Your task to perform on an android device: Go to location settings Image 0: 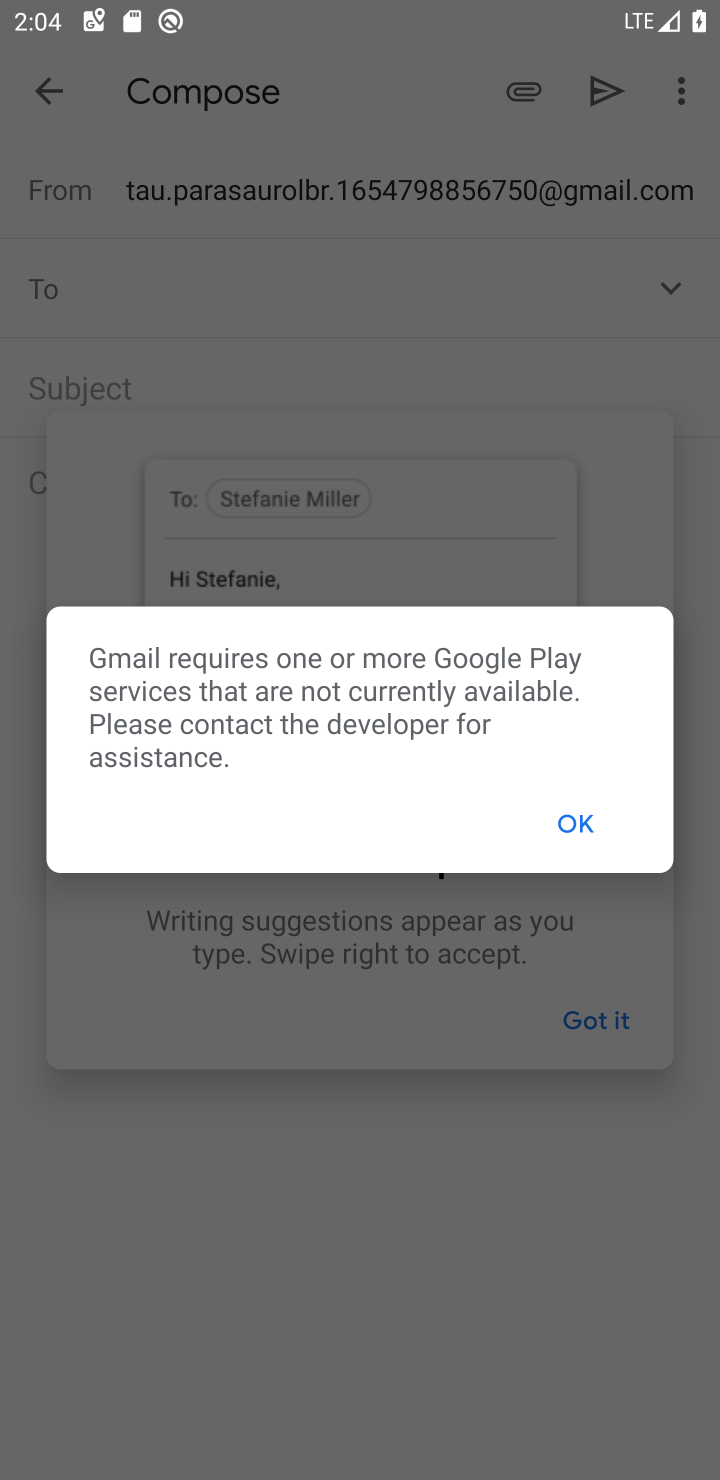
Step 0: drag from (639, 1250) to (627, 910)
Your task to perform on an android device: Go to location settings Image 1: 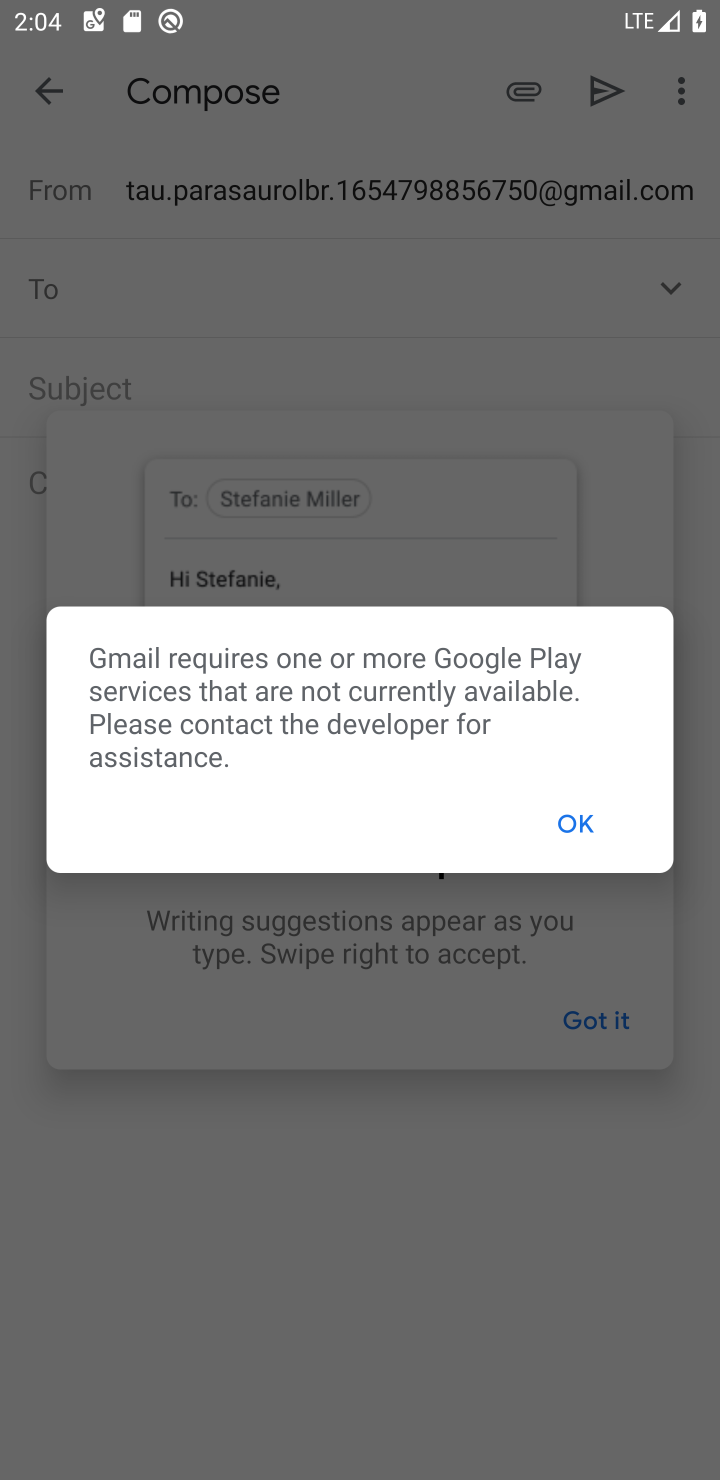
Step 1: press home button
Your task to perform on an android device: Go to location settings Image 2: 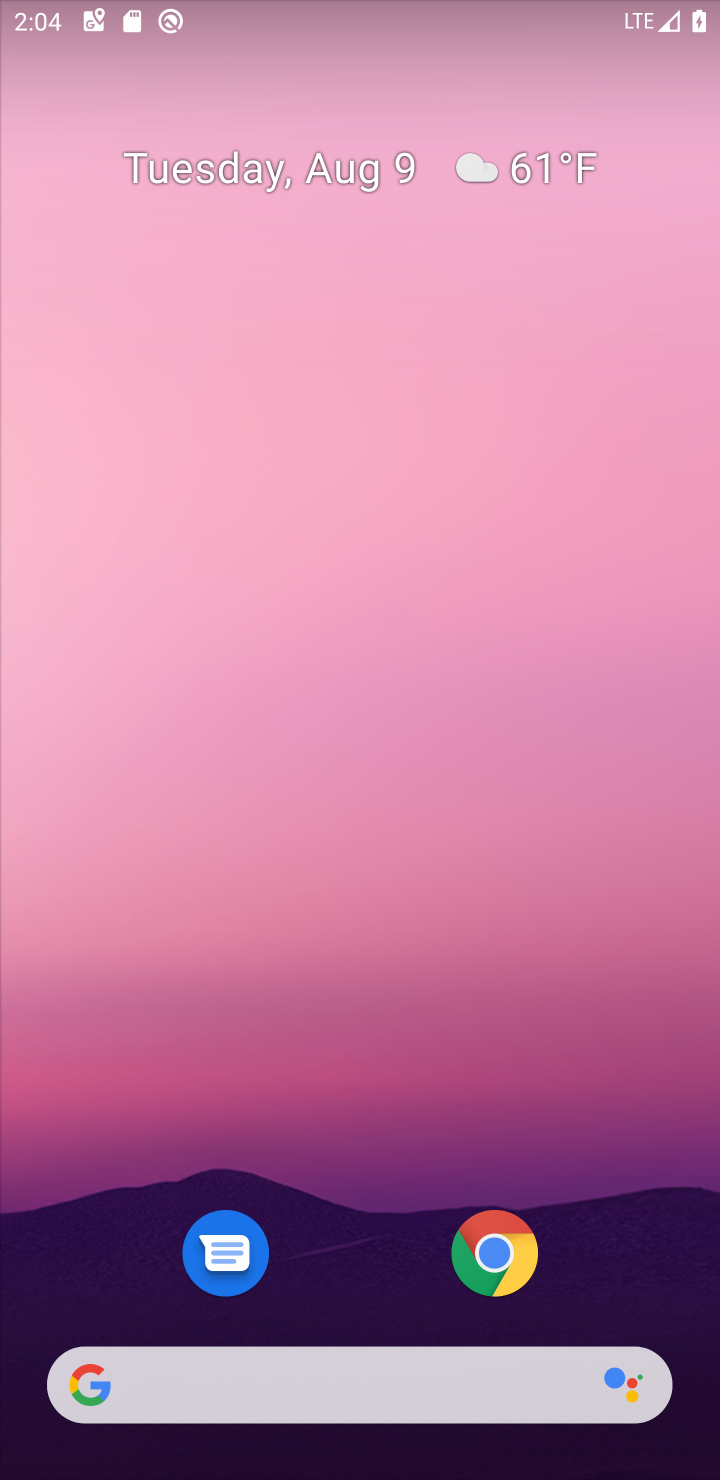
Step 2: drag from (640, 1155) to (302, 4)
Your task to perform on an android device: Go to location settings Image 3: 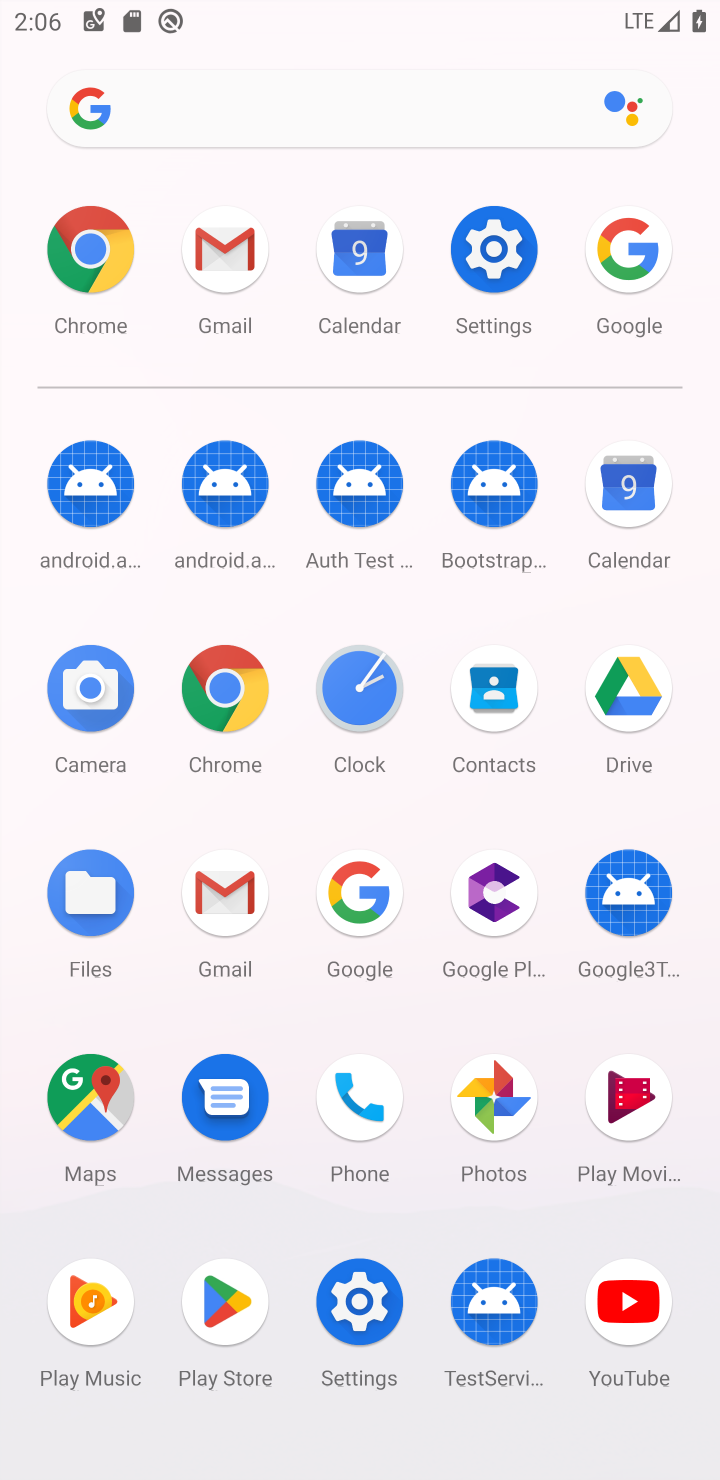
Step 3: click (352, 1300)
Your task to perform on an android device: Go to location settings Image 4: 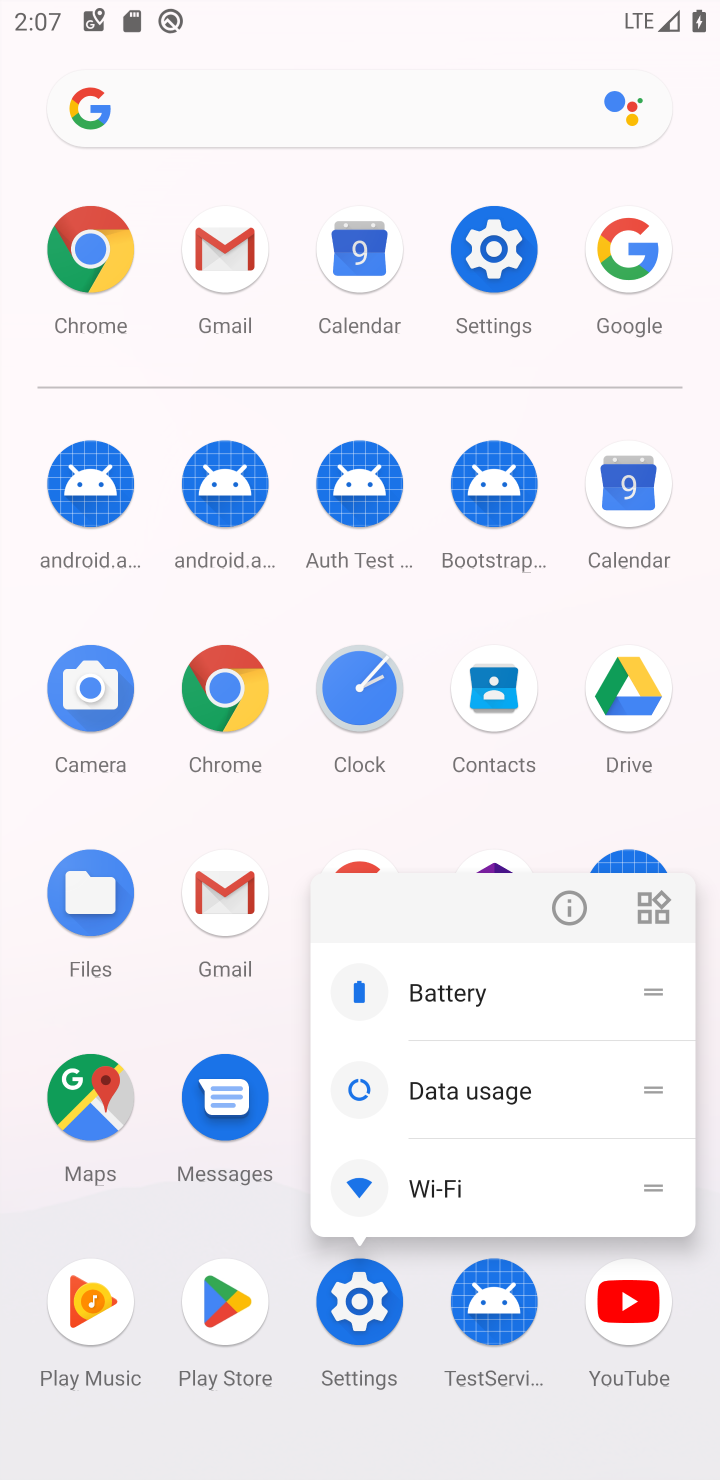
Step 4: click (381, 1309)
Your task to perform on an android device: Go to location settings Image 5: 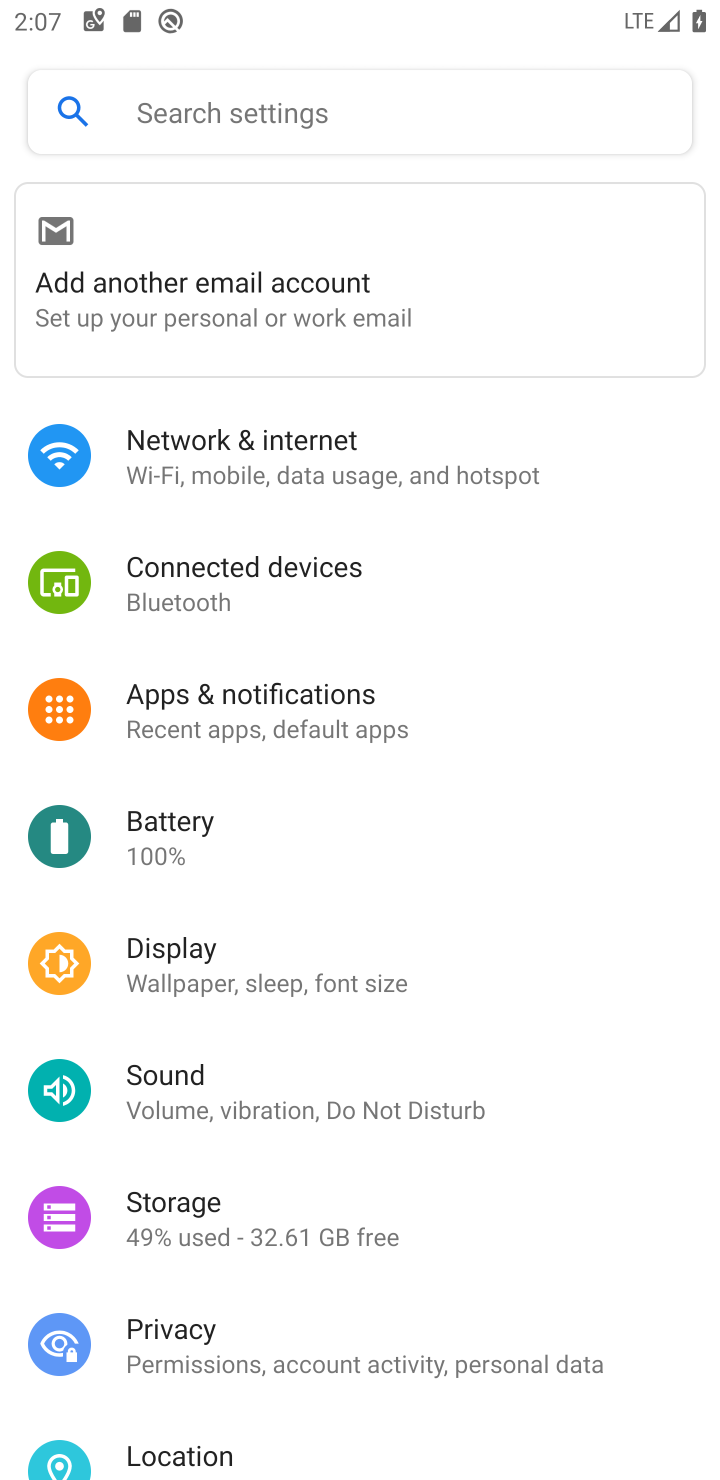
Step 5: click (115, 1435)
Your task to perform on an android device: Go to location settings Image 6: 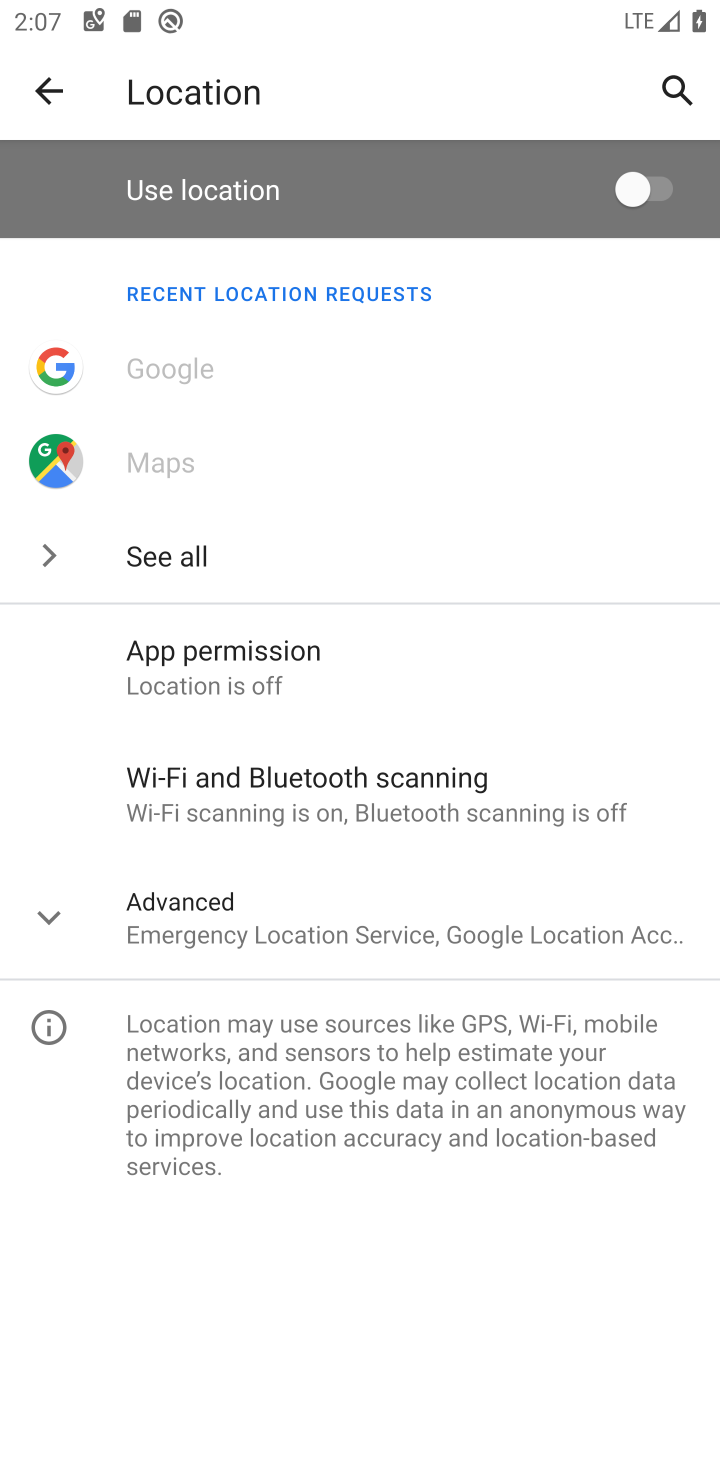
Step 6: task complete